Your task to perform on an android device: Open internet settings Image 0: 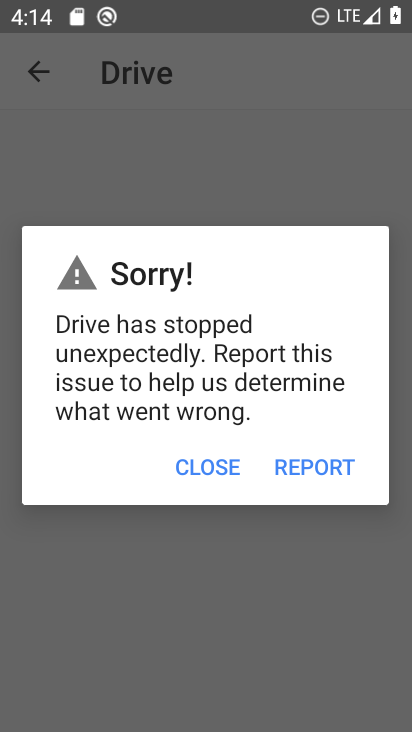
Step 0: press home button
Your task to perform on an android device: Open internet settings Image 1: 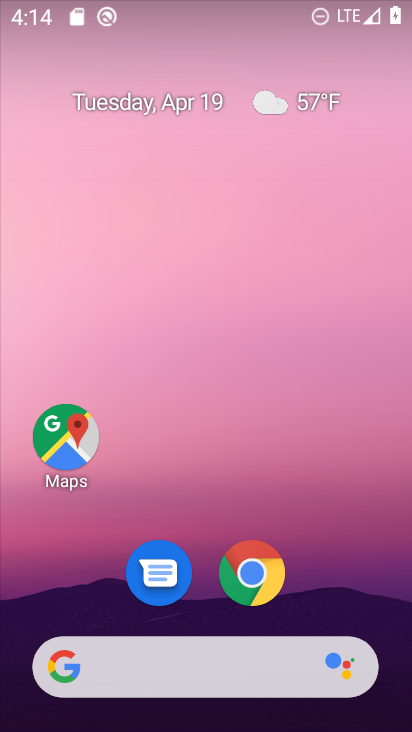
Step 1: drag from (359, 613) to (347, 26)
Your task to perform on an android device: Open internet settings Image 2: 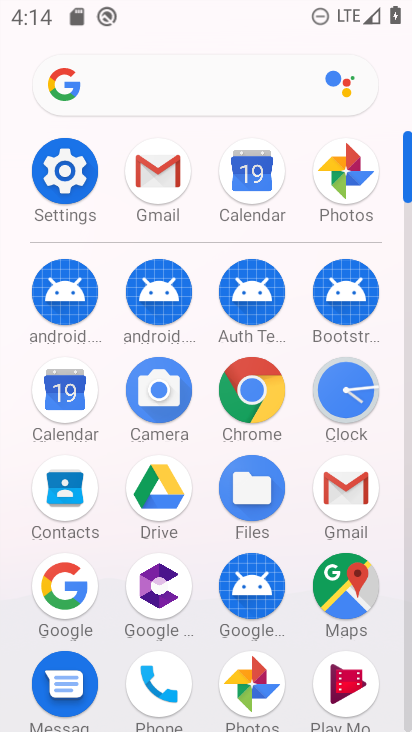
Step 2: click (69, 186)
Your task to perform on an android device: Open internet settings Image 3: 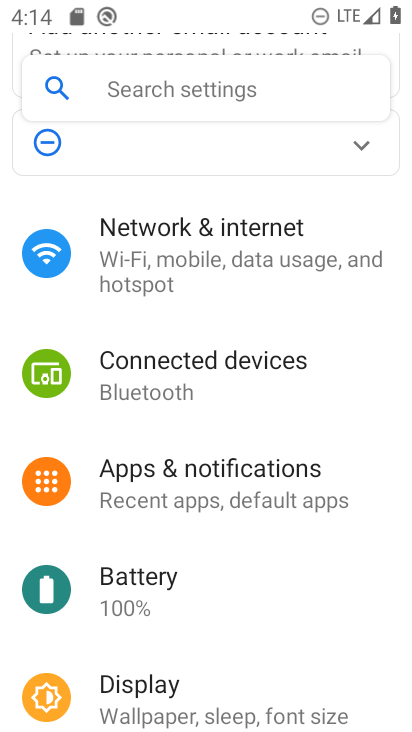
Step 3: click (204, 259)
Your task to perform on an android device: Open internet settings Image 4: 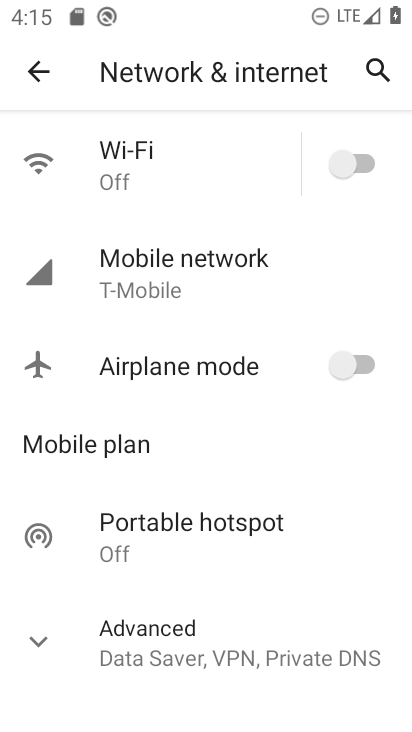
Step 4: drag from (253, 529) to (233, 356)
Your task to perform on an android device: Open internet settings Image 5: 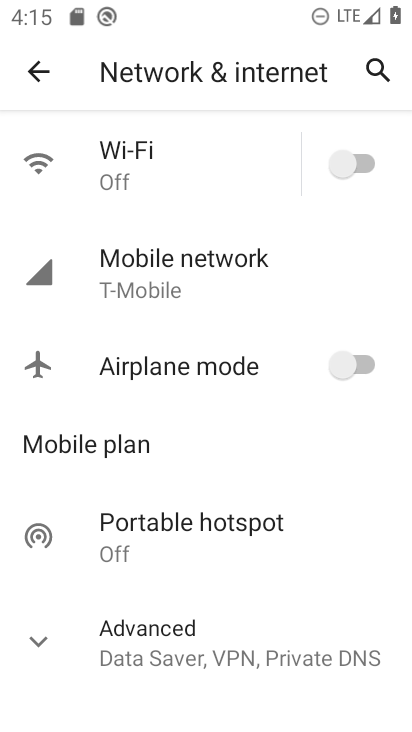
Step 5: click (37, 637)
Your task to perform on an android device: Open internet settings Image 6: 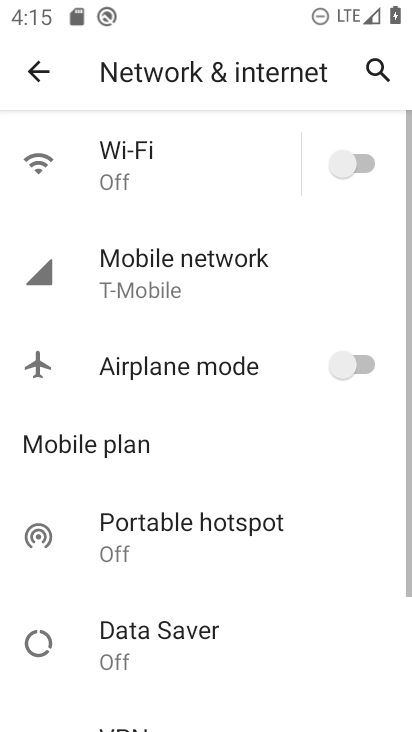
Step 6: task complete